Your task to perform on an android device: change the clock display to analog Image 0: 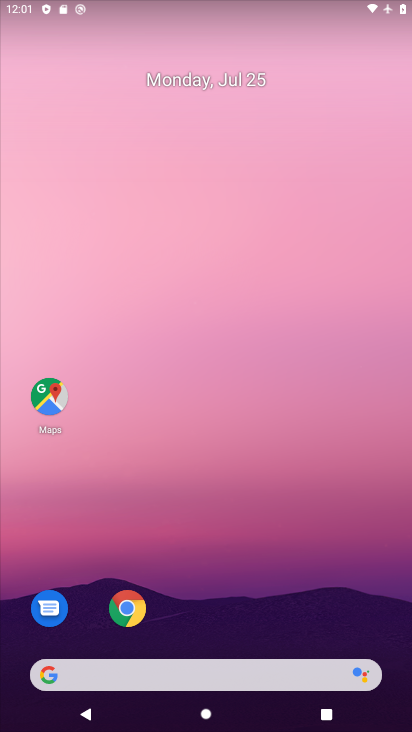
Step 0: drag from (183, 612) to (142, 134)
Your task to perform on an android device: change the clock display to analog Image 1: 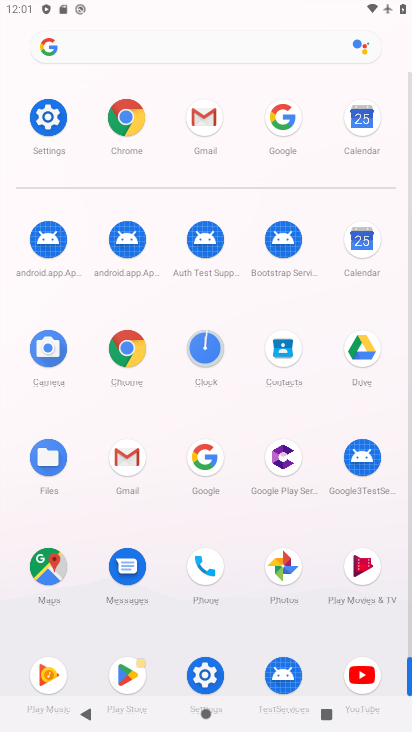
Step 1: click (207, 366)
Your task to perform on an android device: change the clock display to analog Image 2: 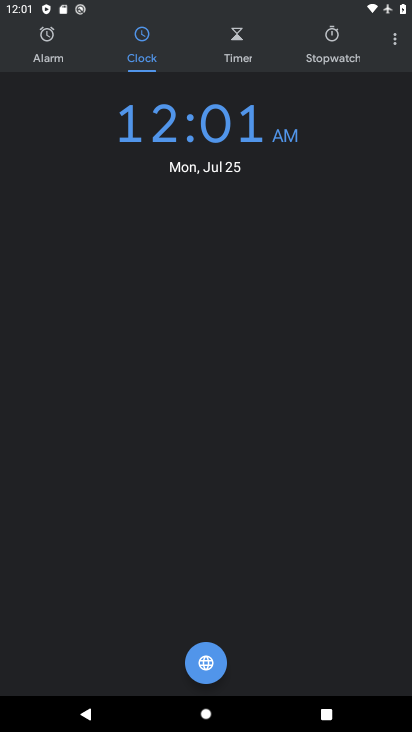
Step 2: click (397, 49)
Your task to perform on an android device: change the clock display to analog Image 3: 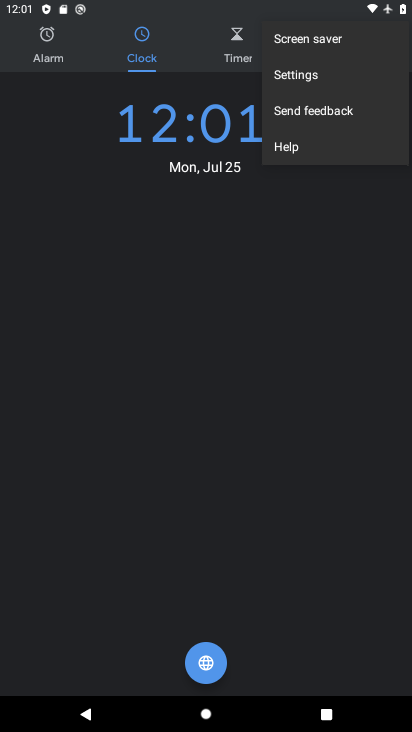
Step 3: click (290, 86)
Your task to perform on an android device: change the clock display to analog Image 4: 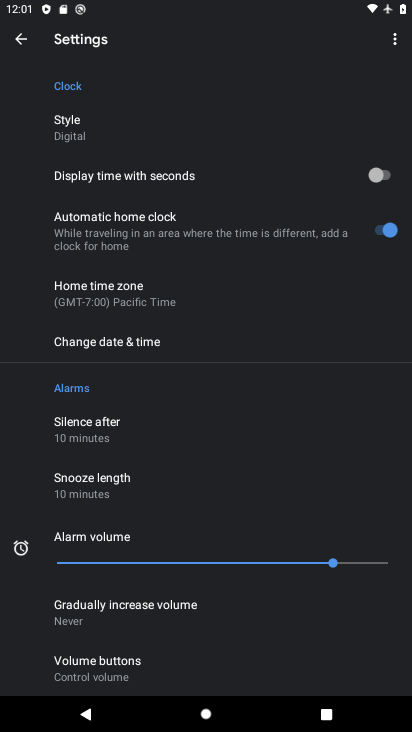
Step 4: task complete